Your task to perform on an android device: remove spam from my inbox in the gmail app Image 0: 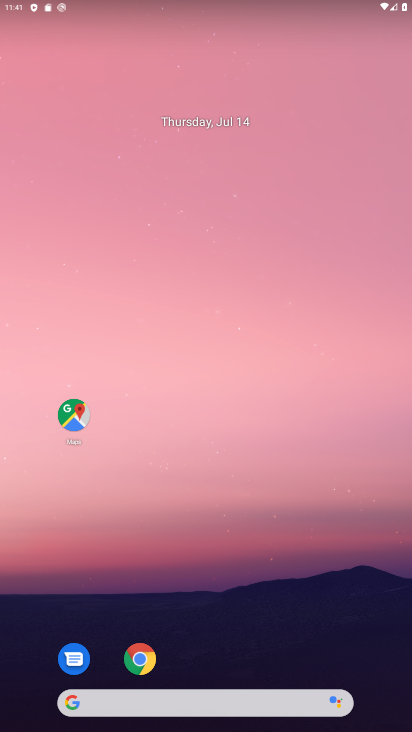
Step 0: drag from (353, 618) to (309, 13)
Your task to perform on an android device: remove spam from my inbox in the gmail app Image 1: 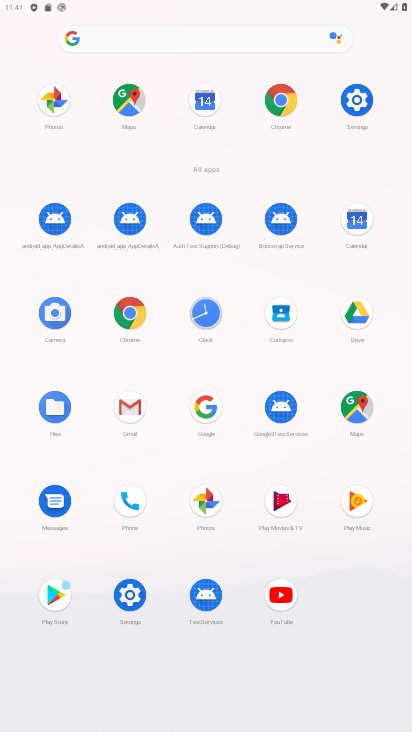
Step 1: click (128, 408)
Your task to perform on an android device: remove spam from my inbox in the gmail app Image 2: 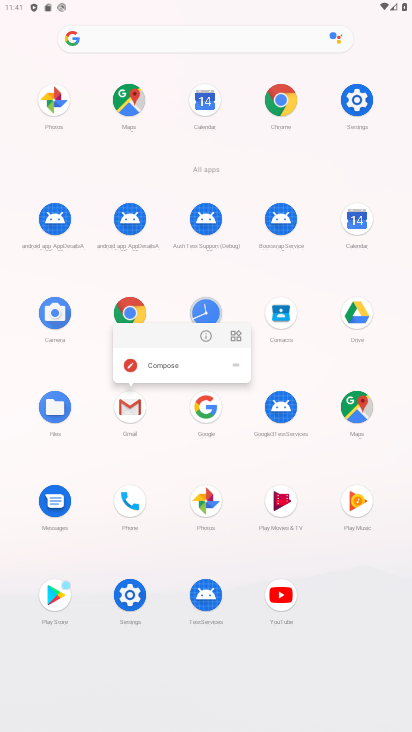
Step 2: click (130, 410)
Your task to perform on an android device: remove spam from my inbox in the gmail app Image 3: 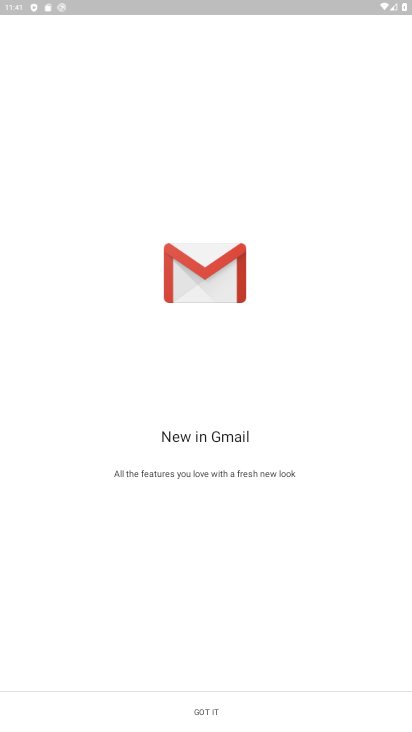
Step 3: click (194, 715)
Your task to perform on an android device: remove spam from my inbox in the gmail app Image 4: 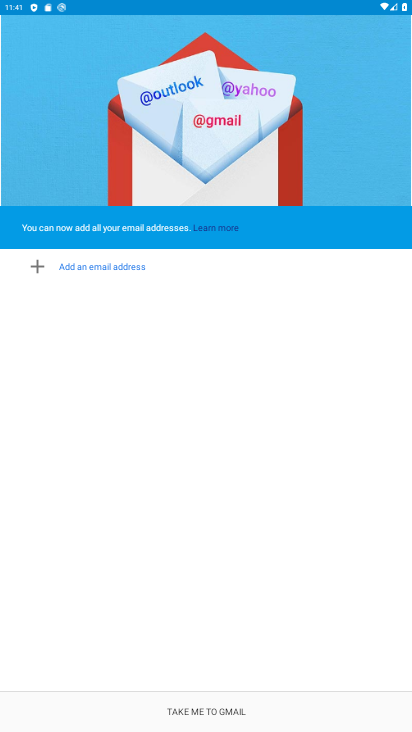
Step 4: click (180, 713)
Your task to perform on an android device: remove spam from my inbox in the gmail app Image 5: 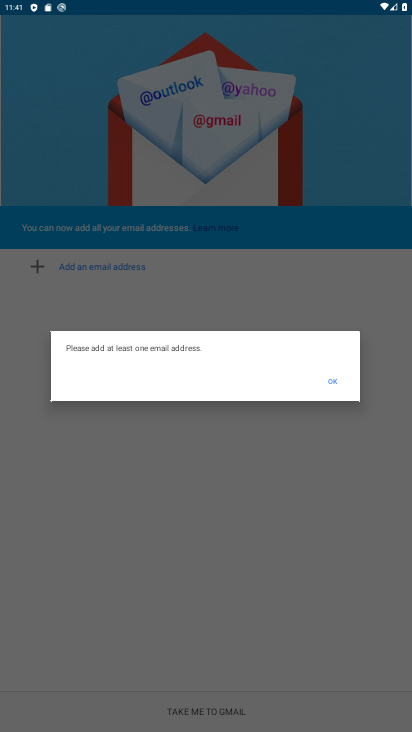
Step 5: click (331, 383)
Your task to perform on an android device: remove spam from my inbox in the gmail app Image 6: 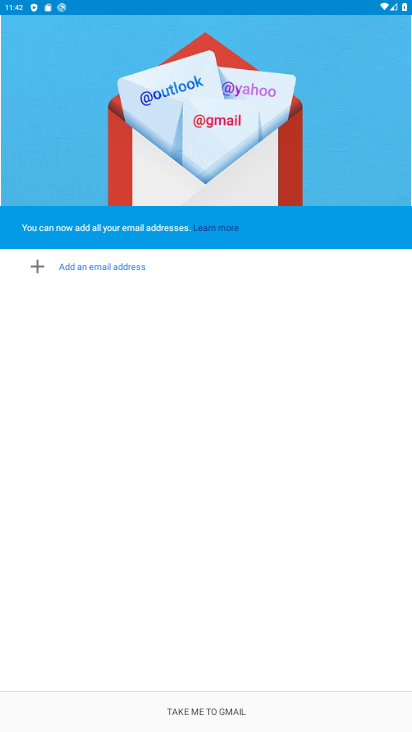
Step 6: click (187, 710)
Your task to perform on an android device: remove spam from my inbox in the gmail app Image 7: 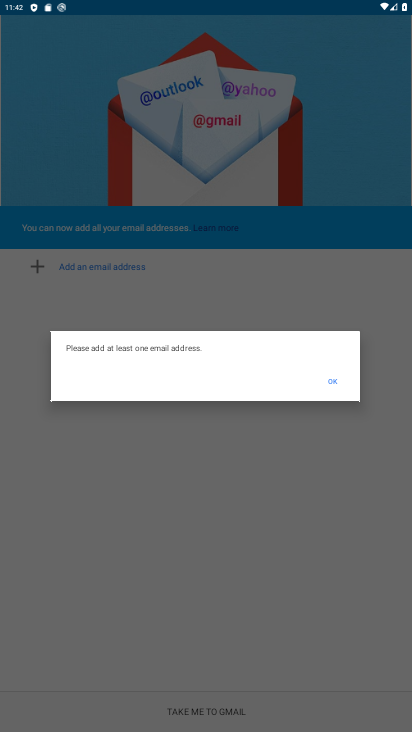
Step 7: click (335, 381)
Your task to perform on an android device: remove spam from my inbox in the gmail app Image 8: 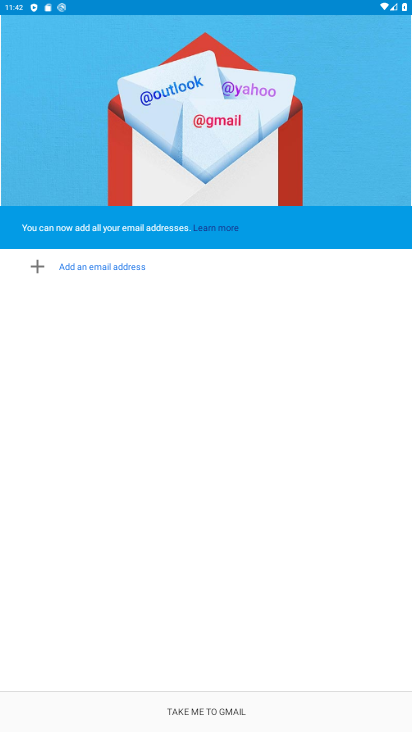
Step 8: task complete